Your task to perform on an android device: What's the news in Indonesia? Image 0: 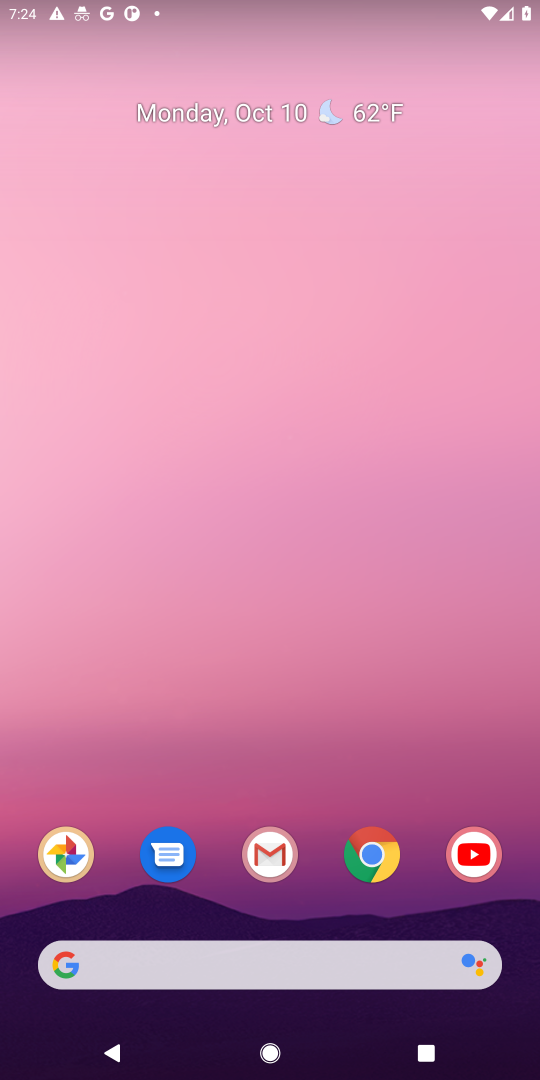
Step 0: click (363, 858)
Your task to perform on an android device: What's the news in Indonesia? Image 1: 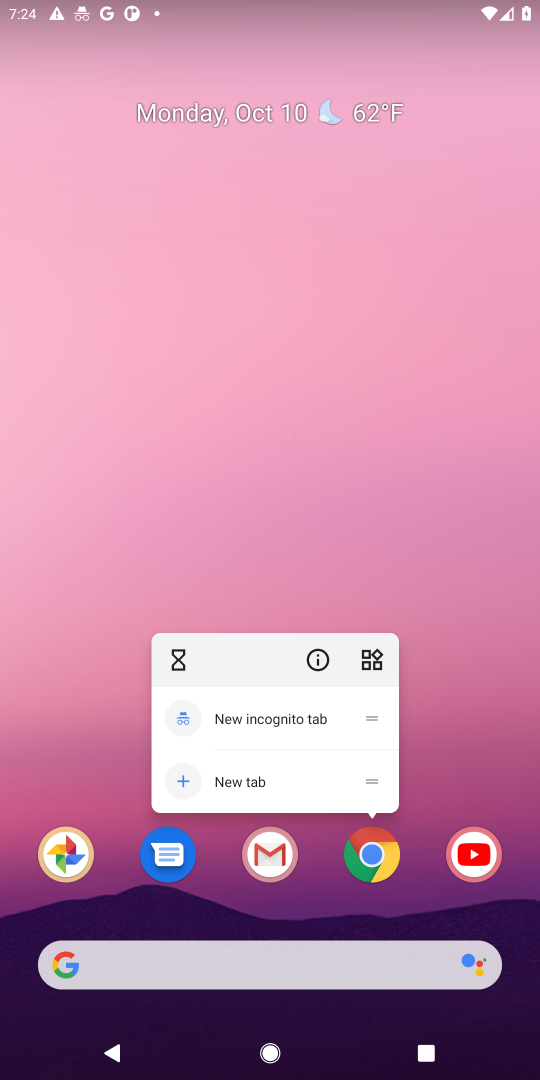
Step 1: click (363, 858)
Your task to perform on an android device: What's the news in Indonesia? Image 2: 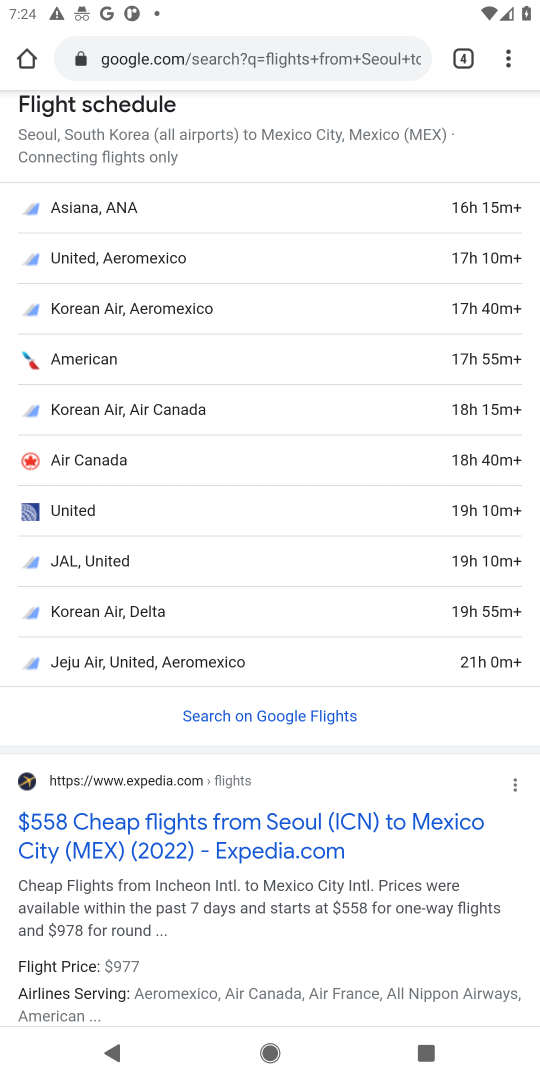
Step 2: click (312, 56)
Your task to perform on an android device: What's the news in Indonesia? Image 3: 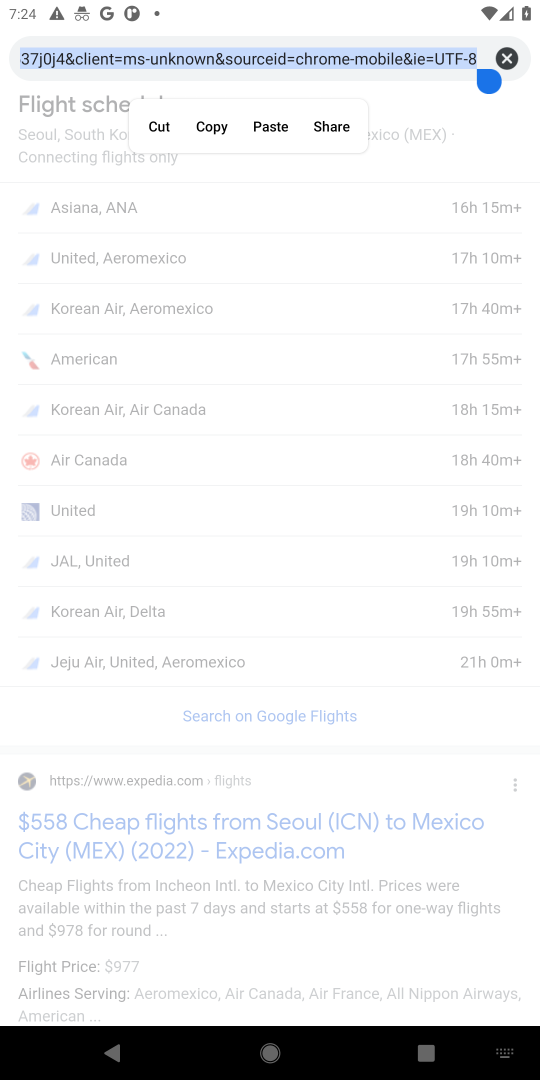
Step 3: click (506, 58)
Your task to perform on an android device: What's the news in Indonesia? Image 4: 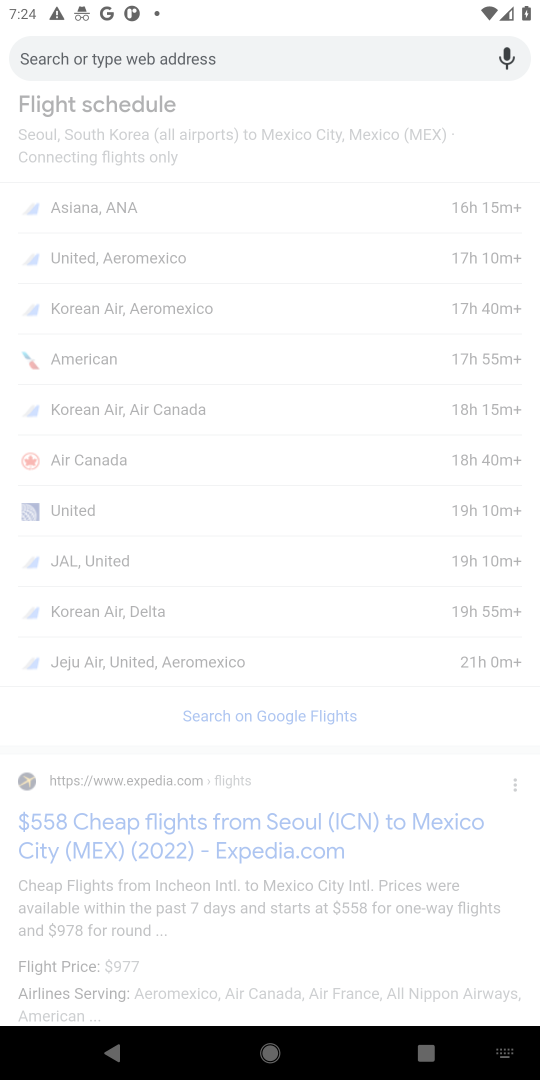
Step 4: type "news in Indonesia"
Your task to perform on an android device: What's the news in Indonesia? Image 5: 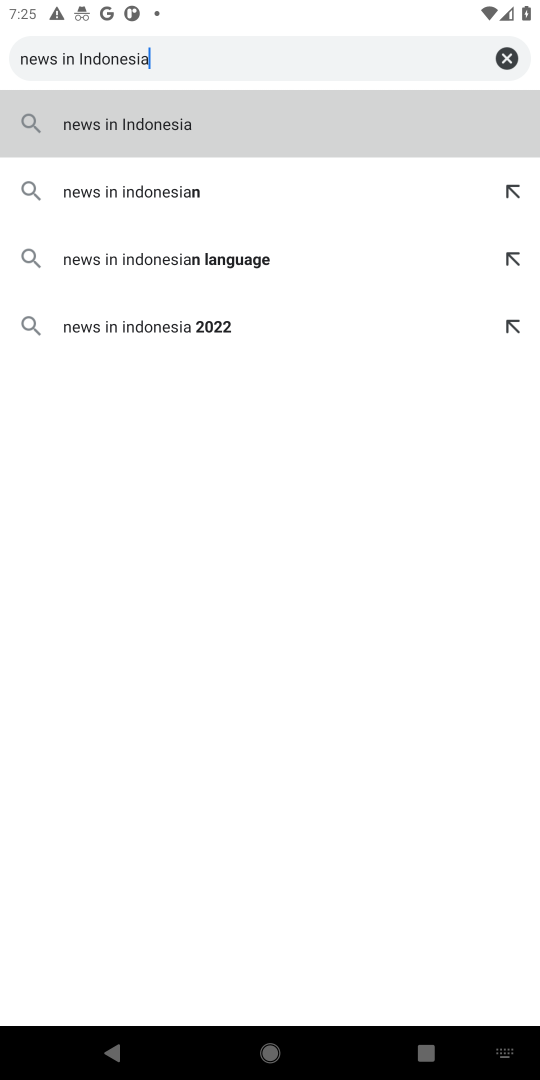
Step 5: click (107, 128)
Your task to perform on an android device: What's the news in Indonesia? Image 6: 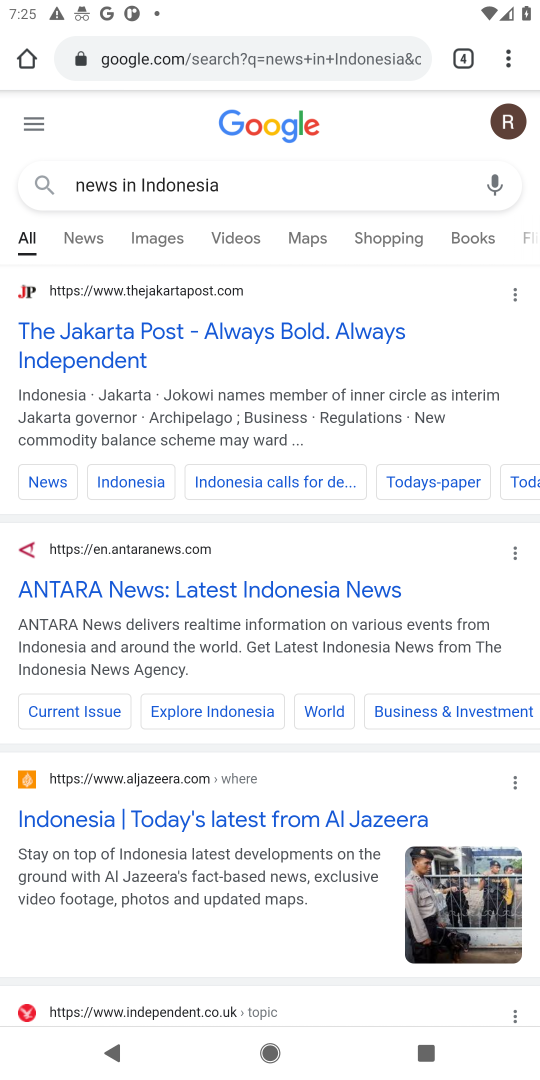
Step 6: drag from (211, 781) to (247, 461)
Your task to perform on an android device: What's the news in Indonesia? Image 7: 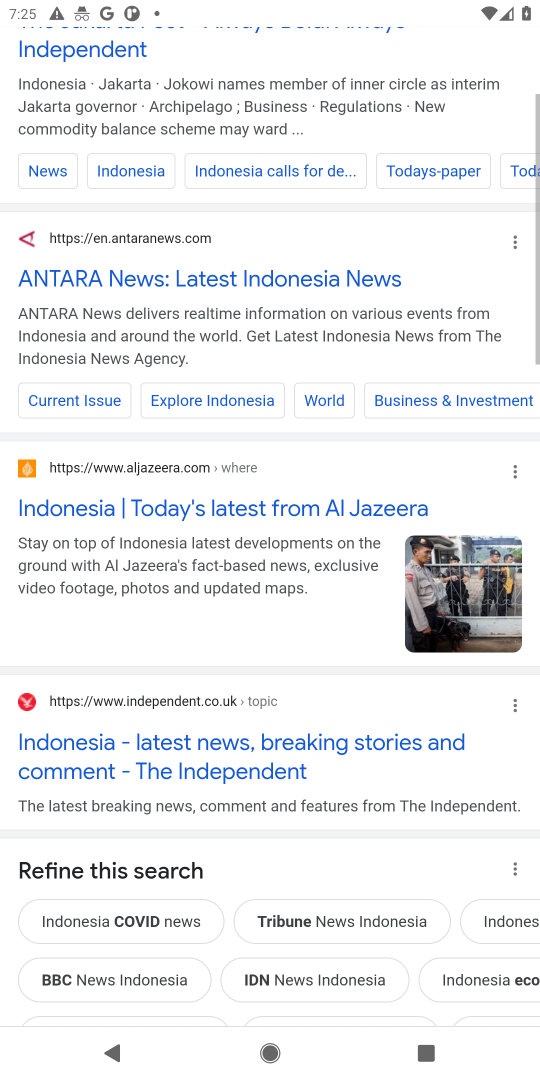
Step 7: drag from (240, 424) to (265, 742)
Your task to perform on an android device: What's the news in Indonesia? Image 8: 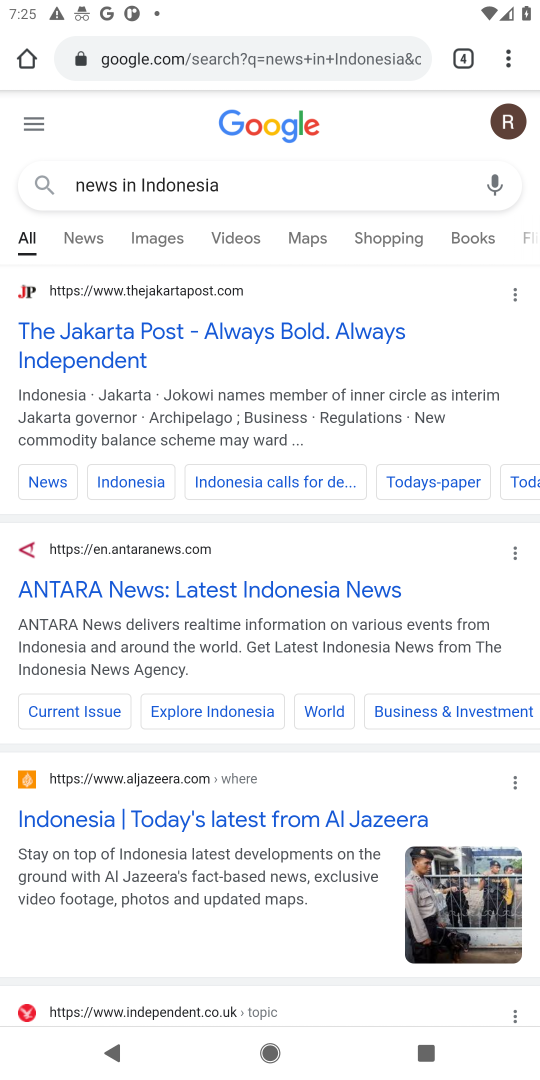
Step 8: click (75, 239)
Your task to perform on an android device: What's the news in Indonesia? Image 9: 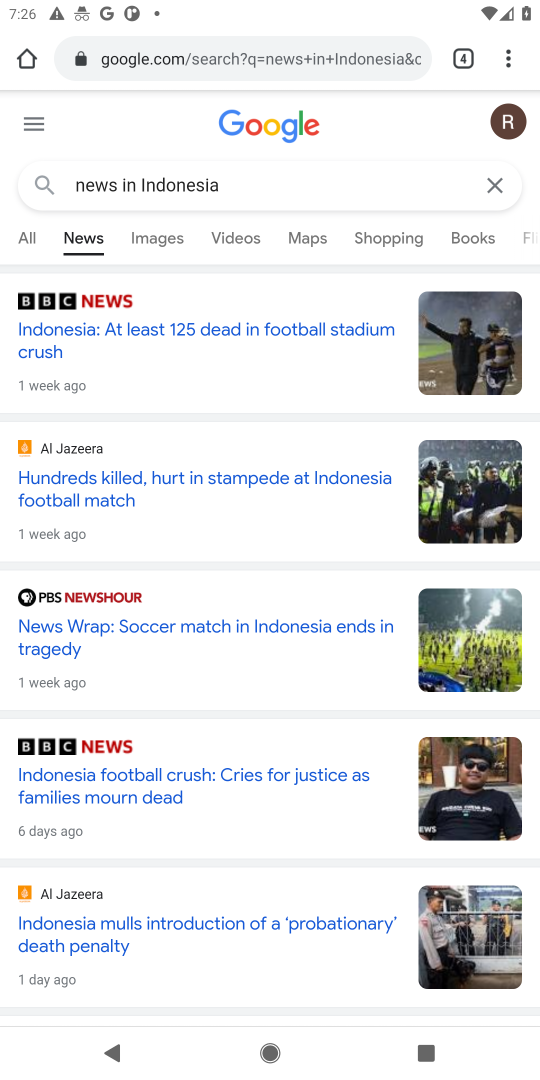
Step 9: task complete